Your task to perform on an android device: toggle location history Image 0: 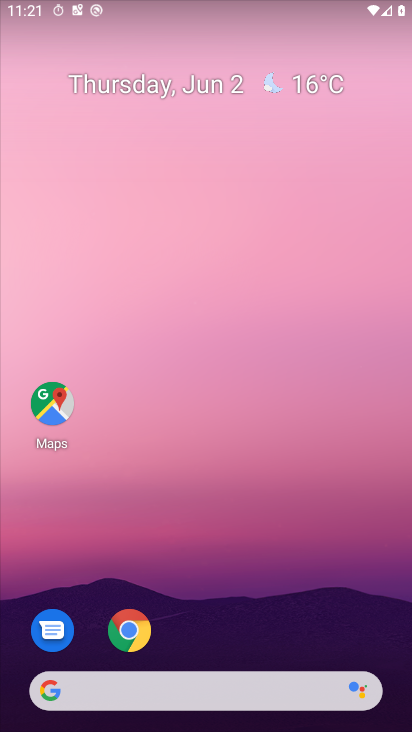
Step 0: drag from (234, 658) to (246, 88)
Your task to perform on an android device: toggle location history Image 1: 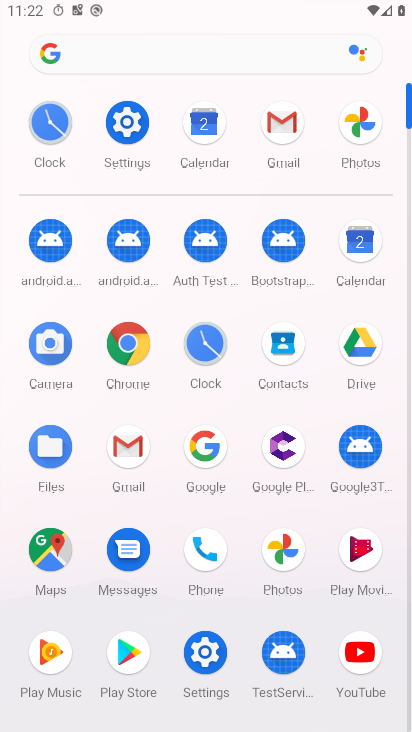
Step 1: click (131, 130)
Your task to perform on an android device: toggle location history Image 2: 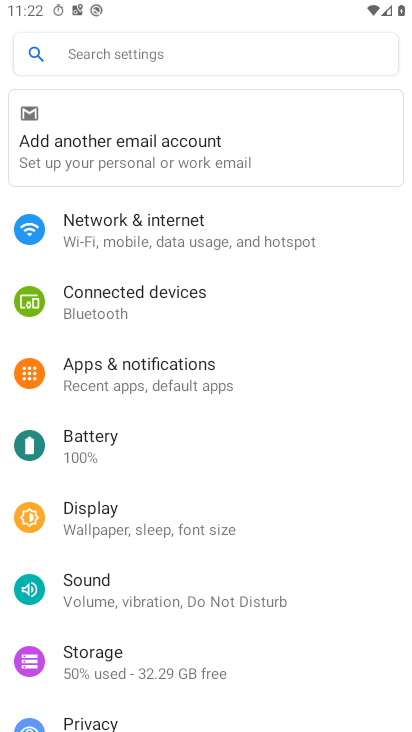
Step 2: drag from (204, 565) to (235, 308)
Your task to perform on an android device: toggle location history Image 3: 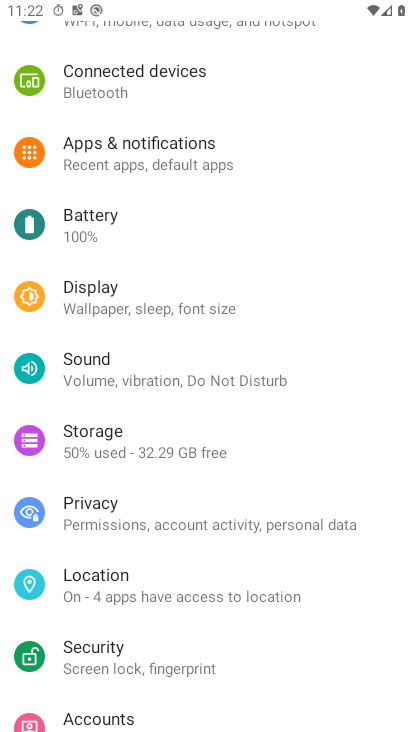
Step 3: click (137, 593)
Your task to perform on an android device: toggle location history Image 4: 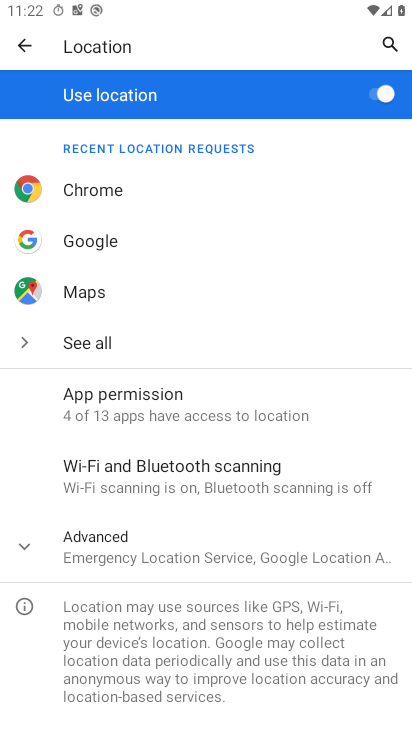
Step 4: click (180, 544)
Your task to perform on an android device: toggle location history Image 5: 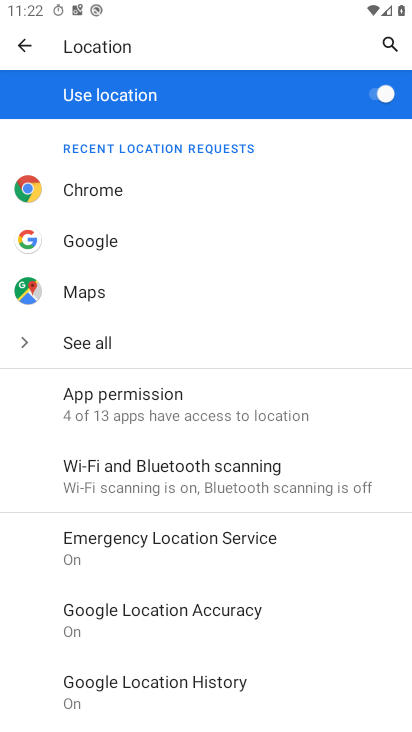
Step 5: click (184, 680)
Your task to perform on an android device: toggle location history Image 6: 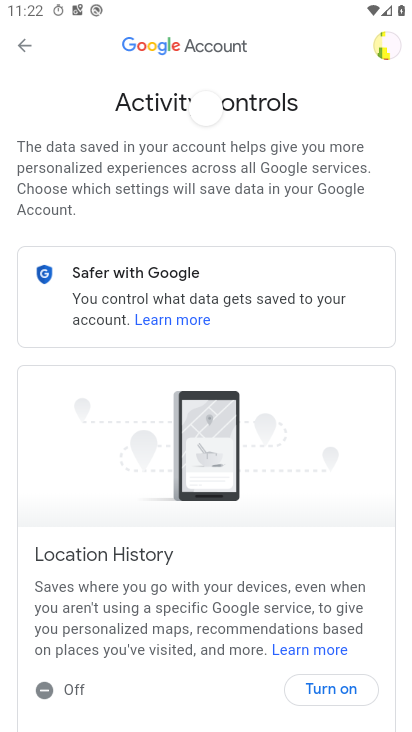
Step 6: drag from (252, 597) to (240, 212)
Your task to perform on an android device: toggle location history Image 7: 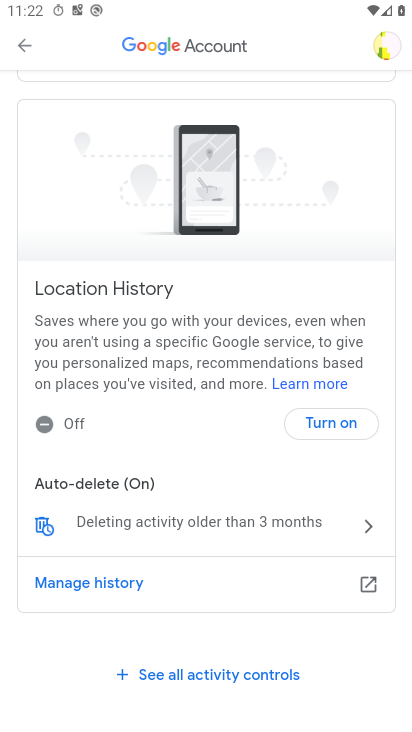
Step 7: click (320, 426)
Your task to perform on an android device: toggle location history Image 8: 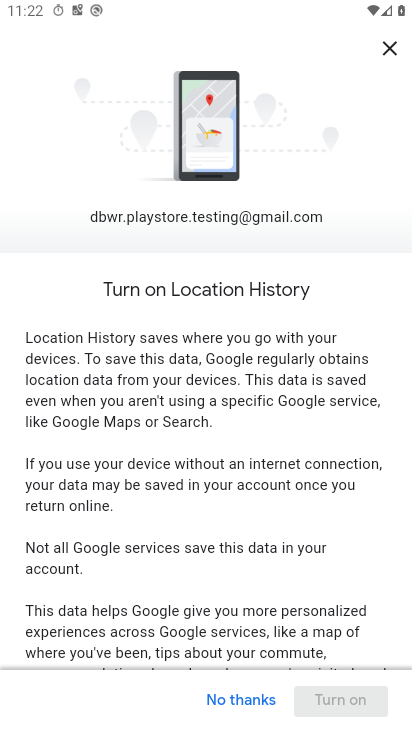
Step 8: drag from (281, 566) to (289, 194)
Your task to perform on an android device: toggle location history Image 9: 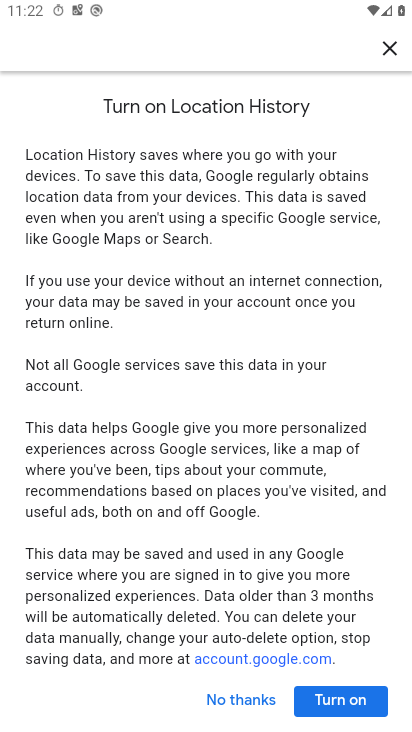
Step 9: click (355, 700)
Your task to perform on an android device: toggle location history Image 10: 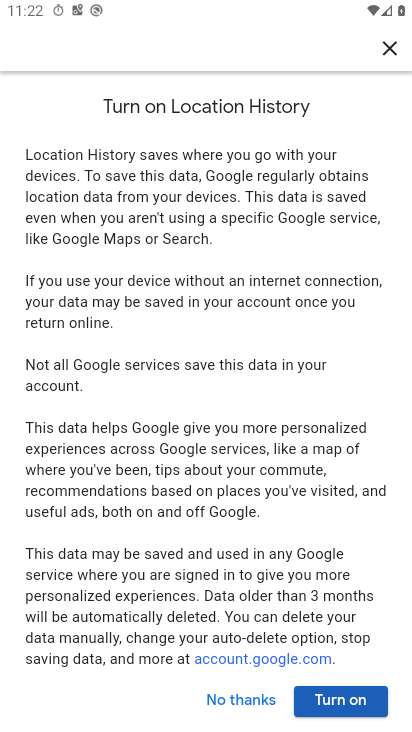
Step 10: click (353, 702)
Your task to perform on an android device: toggle location history Image 11: 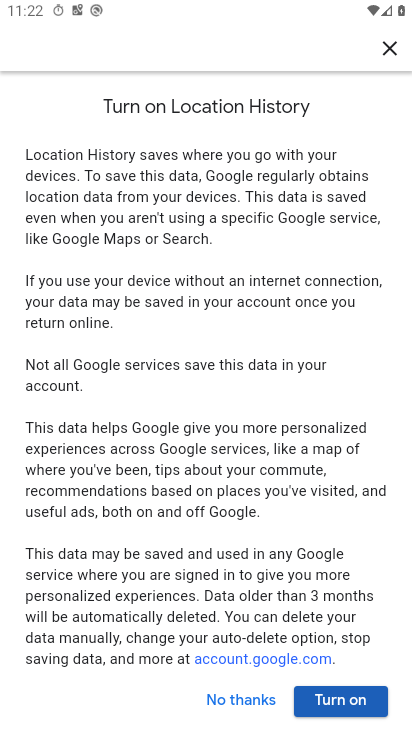
Step 11: click (331, 702)
Your task to perform on an android device: toggle location history Image 12: 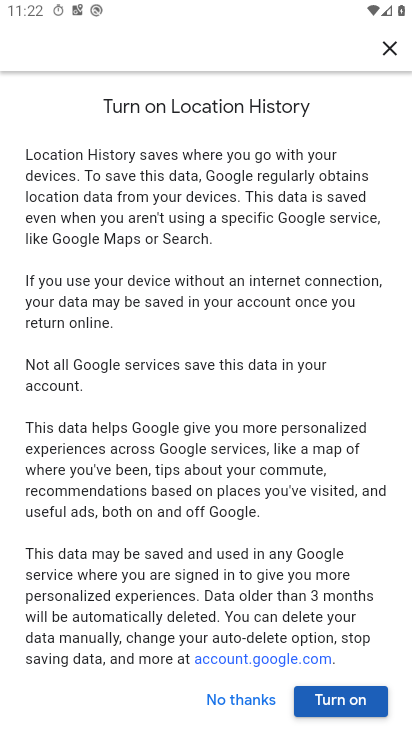
Step 12: click (333, 696)
Your task to perform on an android device: toggle location history Image 13: 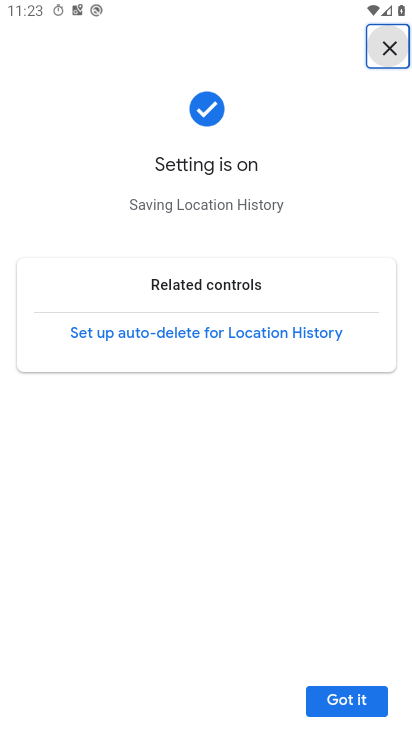
Step 13: click (328, 700)
Your task to perform on an android device: toggle location history Image 14: 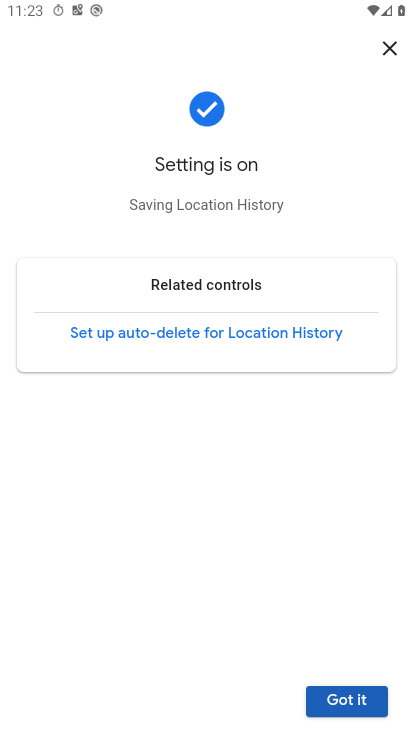
Step 14: click (359, 698)
Your task to perform on an android device: toggle location history Image 15: 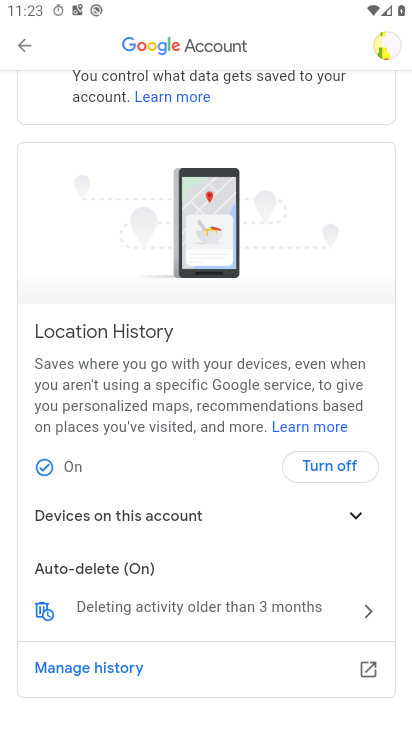
Step 15: task complete